Your task to perform on an android device: open app "Nova Launcher" Image 0: 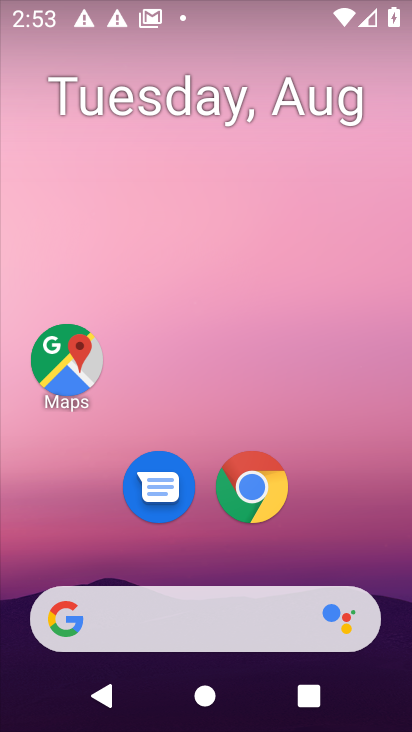
Step 0: drag from (157, 633) to (273, 4)
Your task to perform on an android device: open app "Nova Launcher" Image 1: 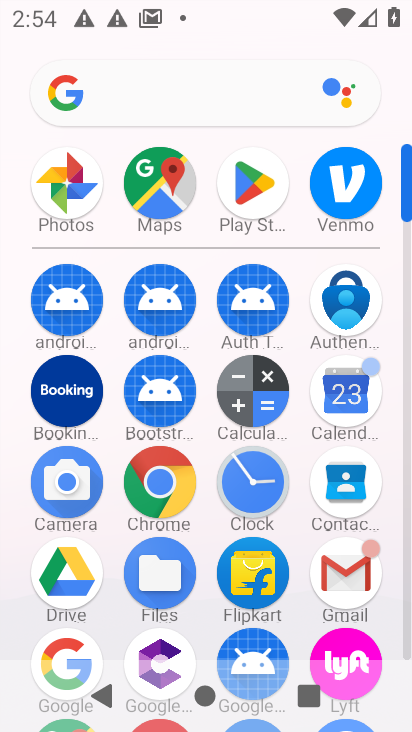
Step 1: click (255, 189)
Your task to perform on an android device: open app "Nova Launcher" Image 2: 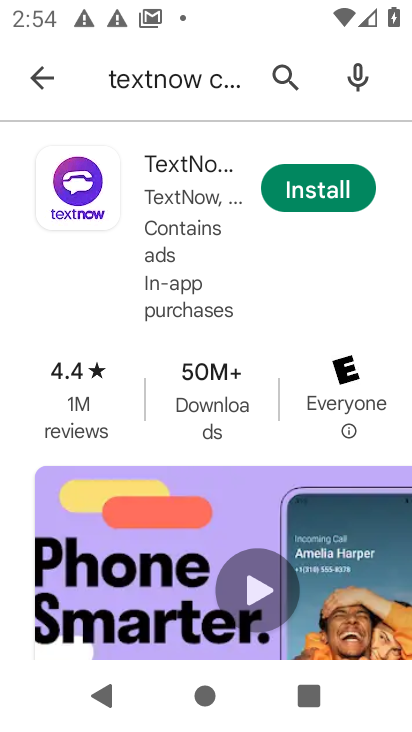
Step 2: press back button
Your task to perform on an android device: open app "Nova Launcher" Image 3: 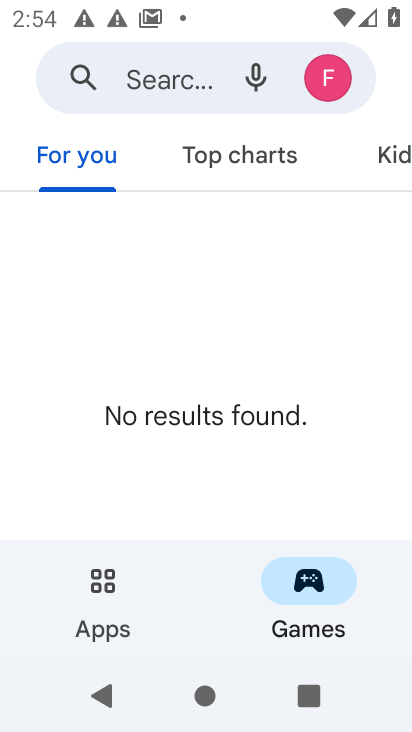
Step 3: click (189, 94)
Your task to perform on an android device: open app "Nova Launcher" Image 4: 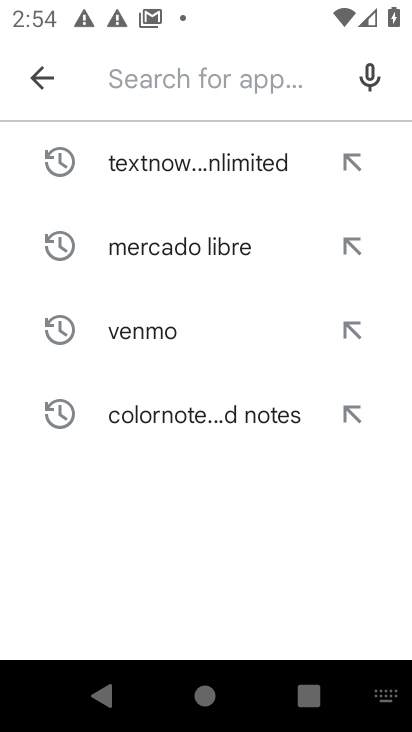
Step 4: type "Nova Launcher"
Your task to perform on an android device: open app "Nova Launcher" Image 5: 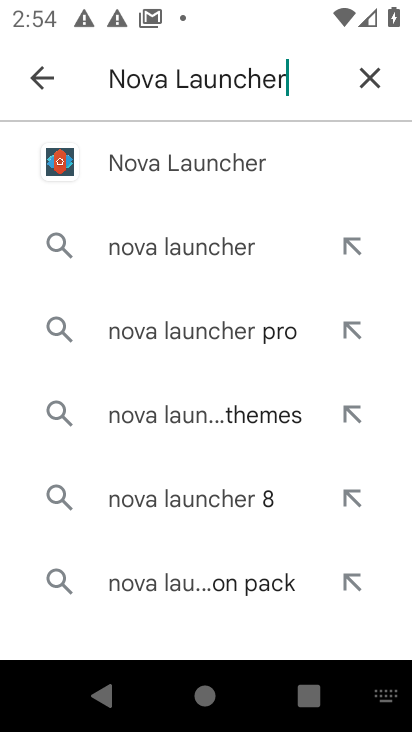
Step 5: click (224, 152)
Your task to perform on an android device: open app "Nova Launcher" Image 6: 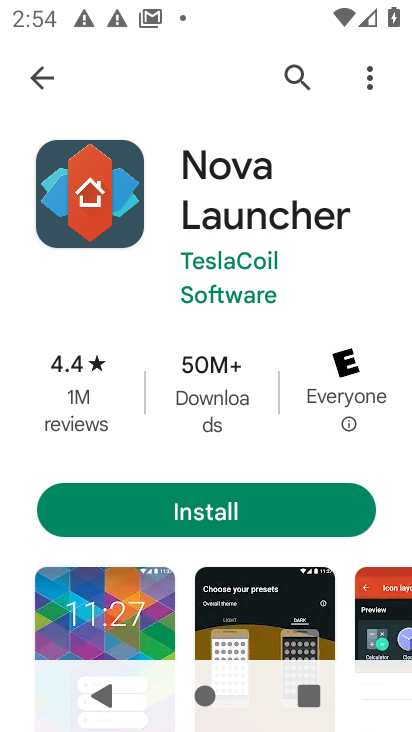
Step 6: task complete